Your task to perform on an android device: add a contact Image 0: 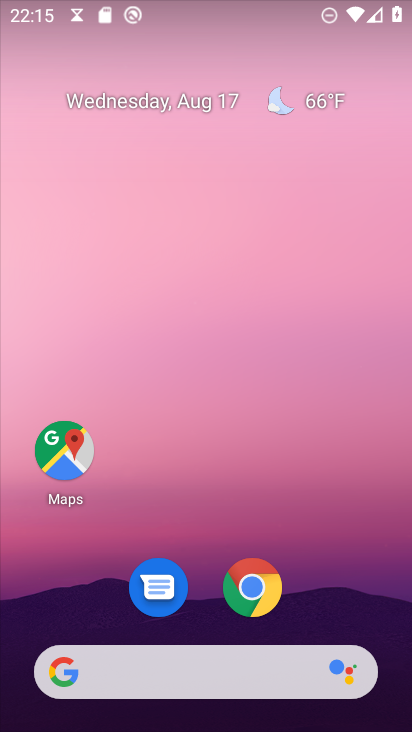
Step 0: drag from (245, 274) to (286, 209)
Your task to perform on an android device: add a contact Image 1: 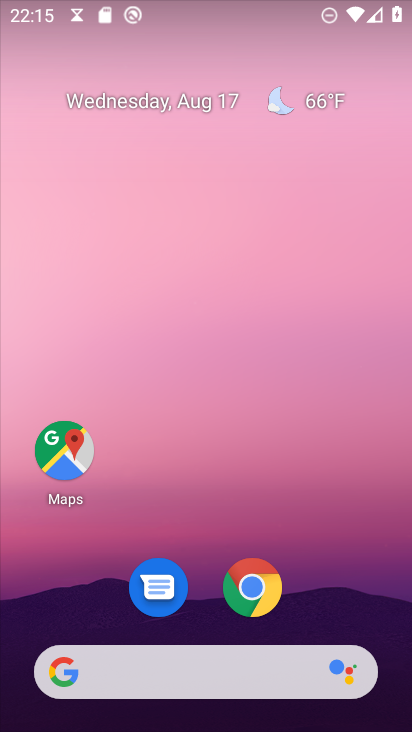
Step 1: drag from (36, 691) to (215, 332)
Your task to perform on an android device: add a contact Image 2: 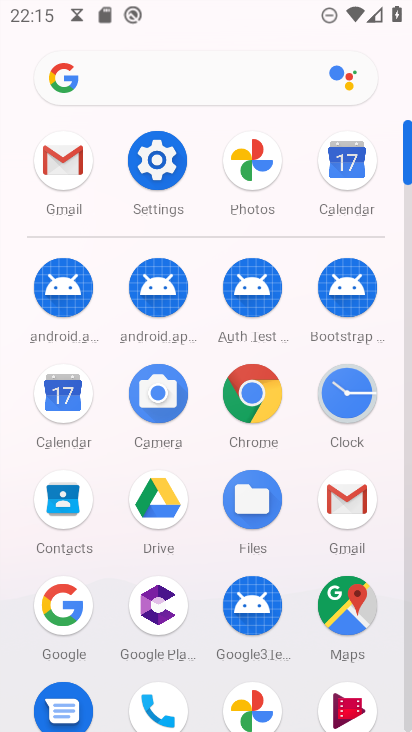
Step 2: click (157, 704)
Your task to perform on an android device: add a contact Image 3: 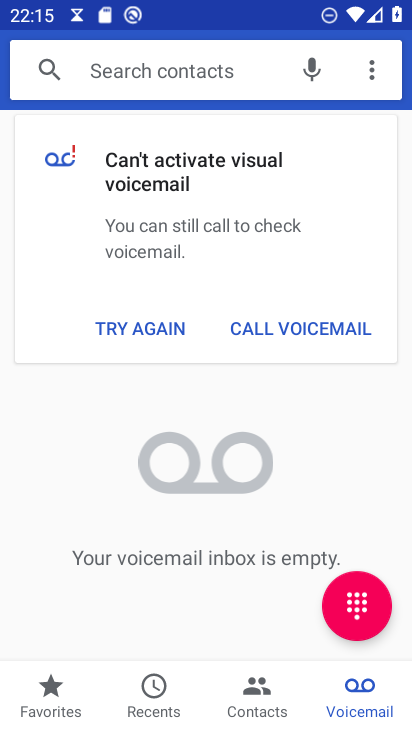
Step 3: click (262, 697)
Your task to perform on an android device: add a contact Image 4: 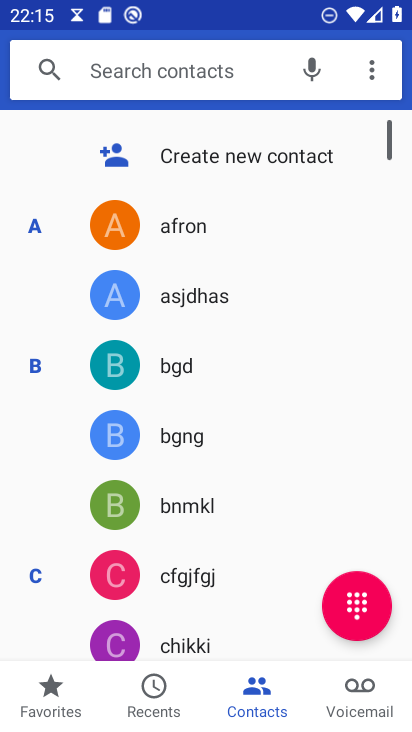
Step 4: click (285, 167)
Your task to perform on an android device: add a contact Image 5: 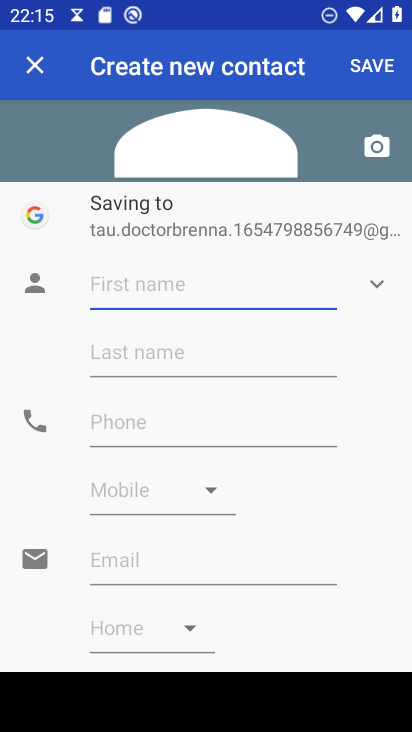
Step 5: type "dfbds"
Your task to perform on an android device: add a contact Image 6: 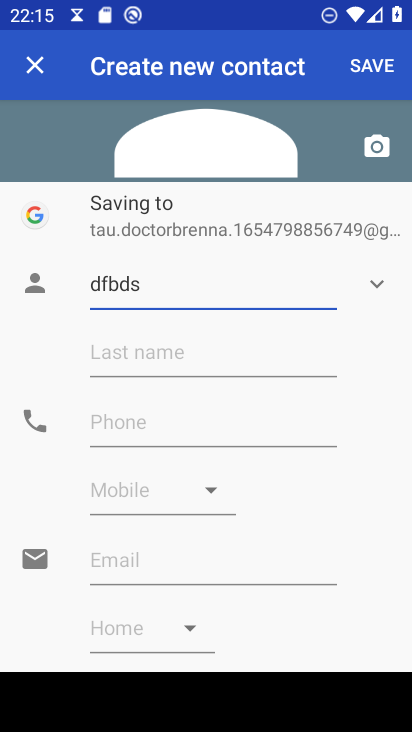
Step 6: click (367, 67)
Your task to perform on an android device: add a contact Image 7: 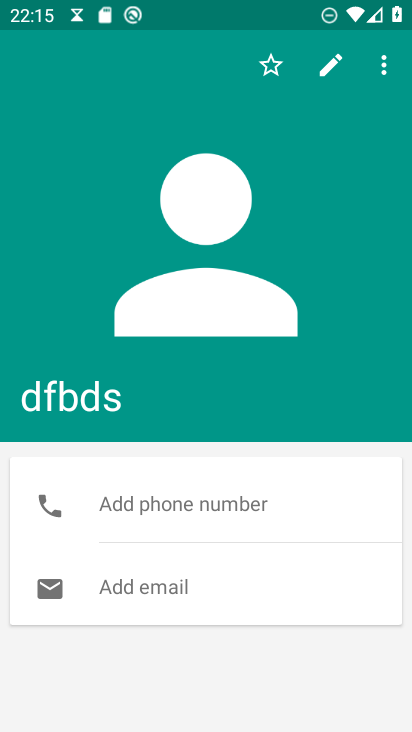
Step 7: task complete